Your task to perform on an android device: Show me recent news Image 0: 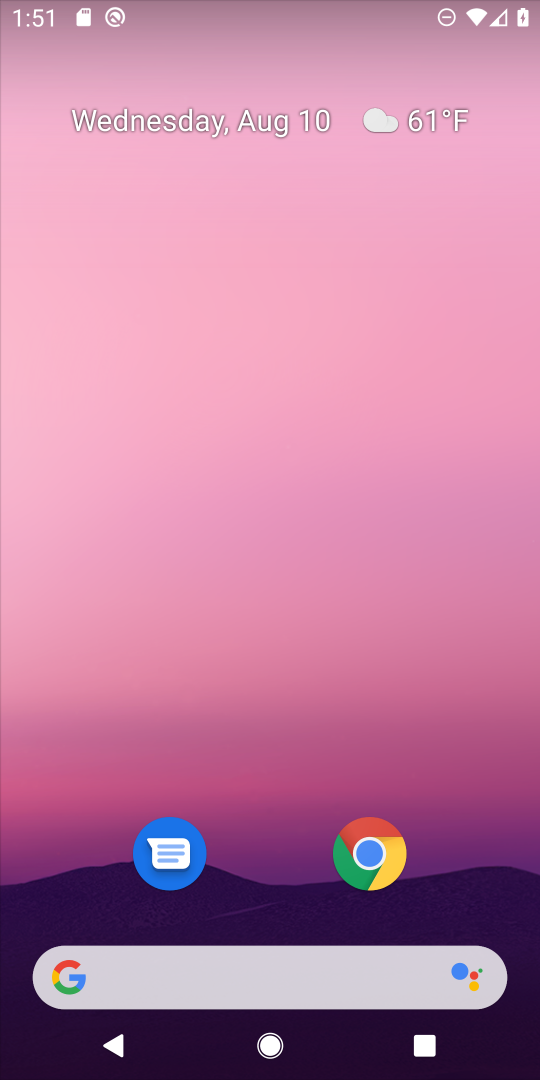
Step 0: drag from (255, 1077) to (267, 1028)
Your task to perform on an android device: Show me recent news Image 1: 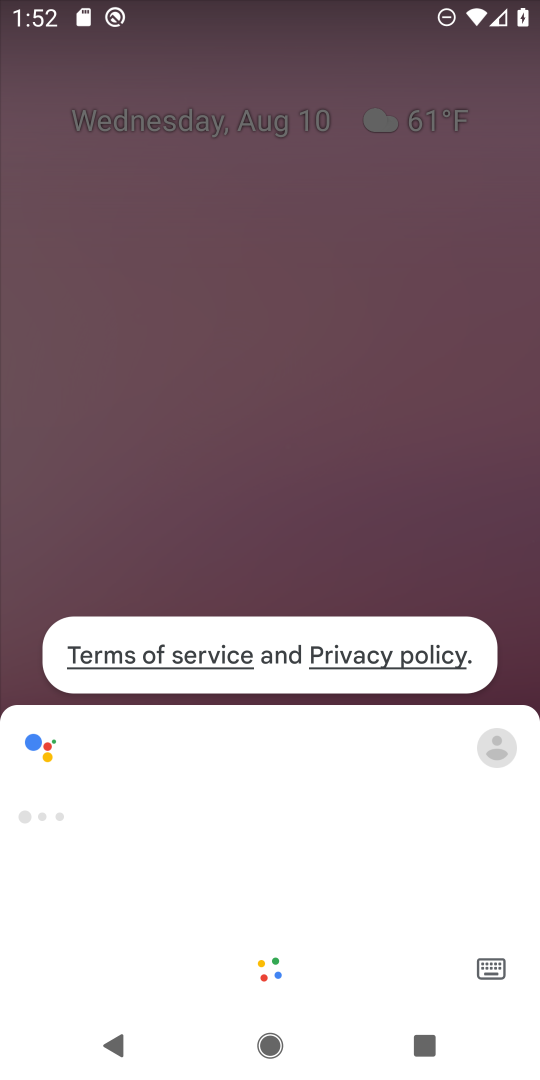
Step 1: click (419, 507)
Your task to perform on an android device: Show me recent news Image 2: 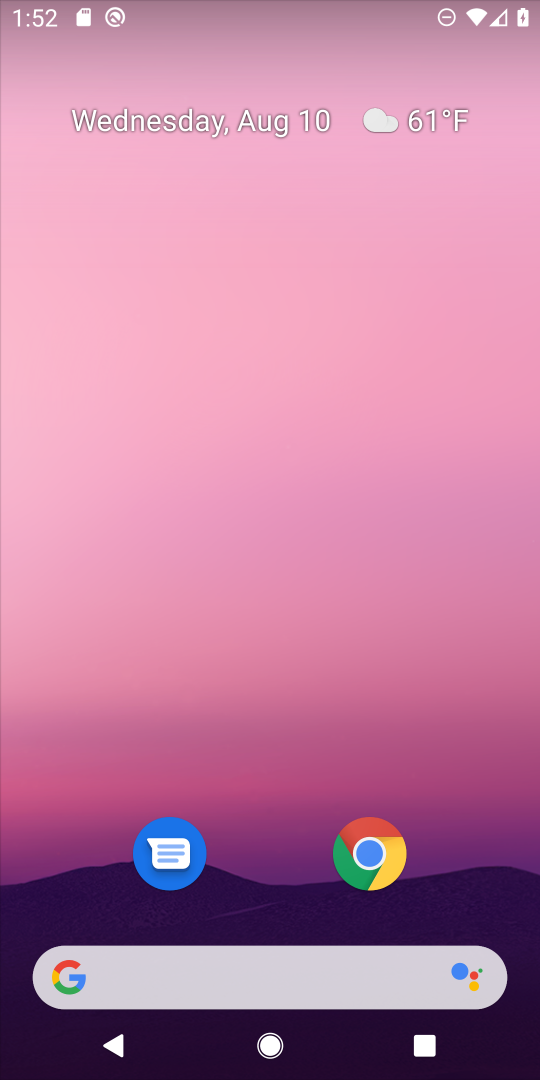
Step 2: click (166, 976)
Your task to perform on an android device: Show me recent news Image 3: 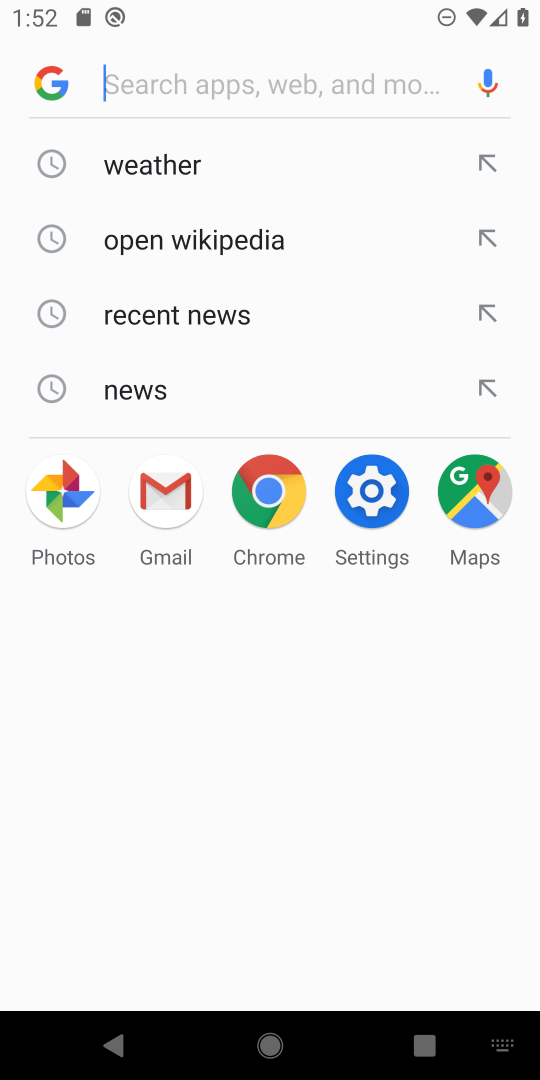
Step 3: type "Show me recent news"
Your task to perform on an android device: Show me recent news Image 4: 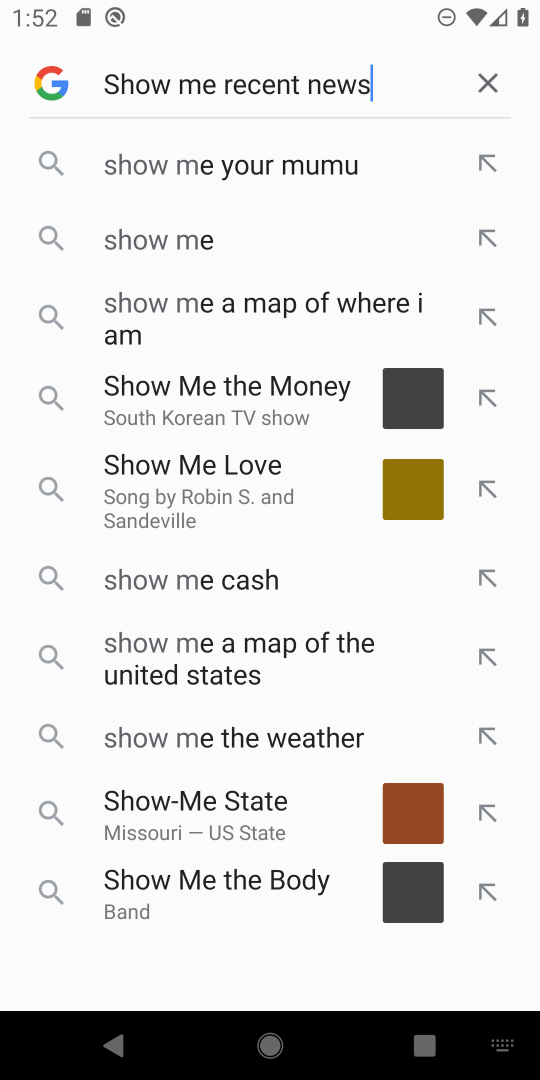
Step 4: press enter
Your task to perform on an android device: Show me recent news Image 5: 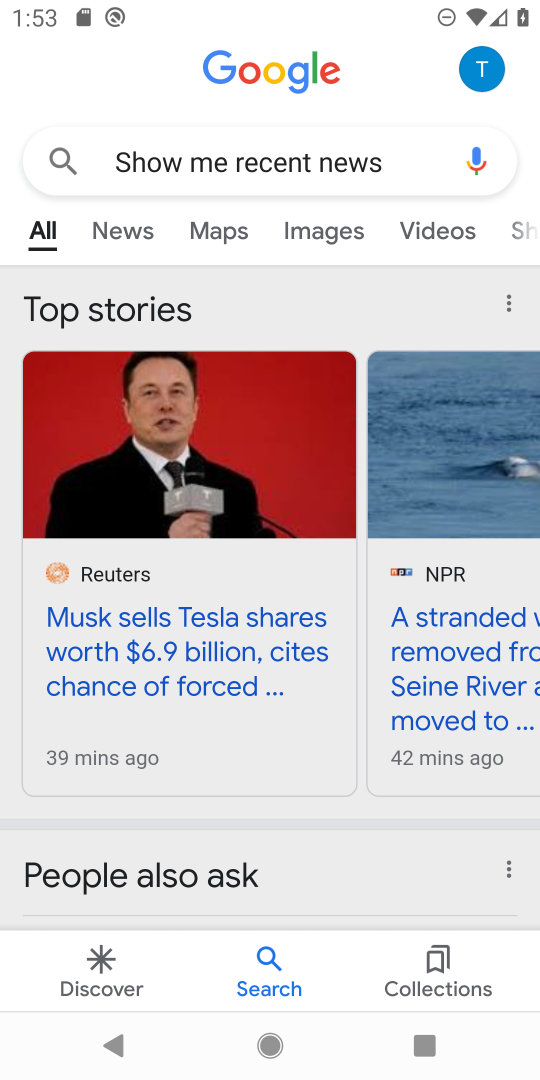
Step 5: task complete